Your task to perform on an android device: snooze an email in the gmail app Image 0: 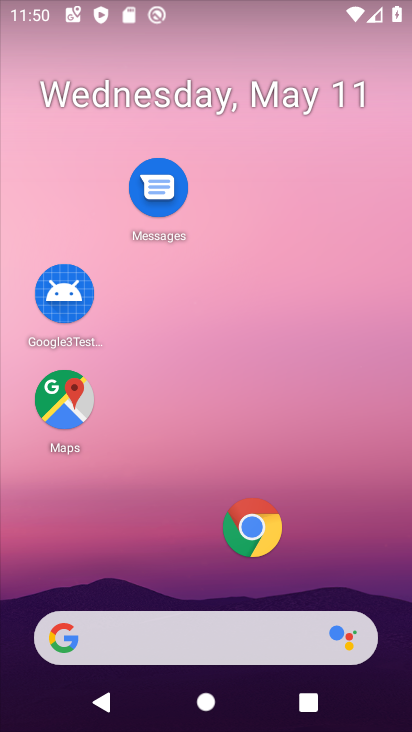
Step 0: drag from (201, 593) to (98, 169)
Your task to perform on an android device: snooze an email in the gmail app Image 1: 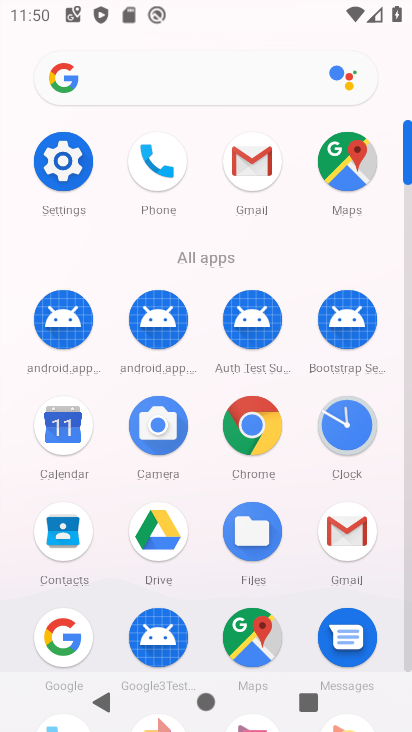
Step 1: click (357, 547)
Your task to perform on an android device: snooze an email in the gmail app Image 2: 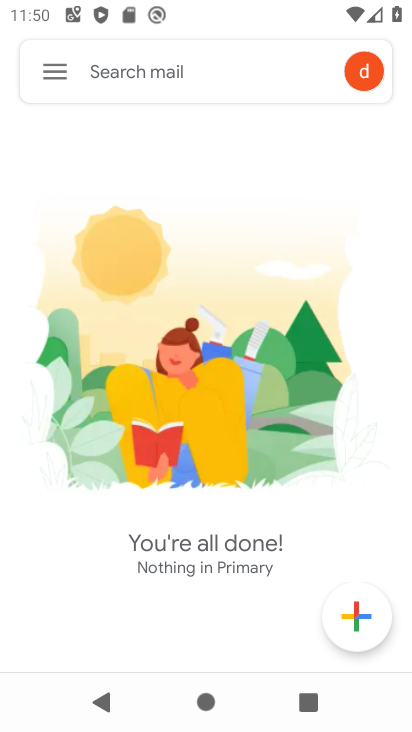
Step 2: click (46, 91)
Your task to perform on an android device: snooze an email in the gmail app Image 3: 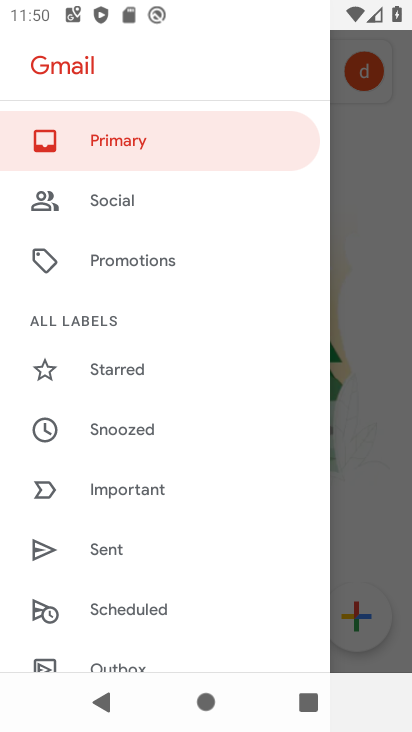
Step 3: click (137, 433)
Your task to perform on an android device: snooze an email in the gmail app Image 4: 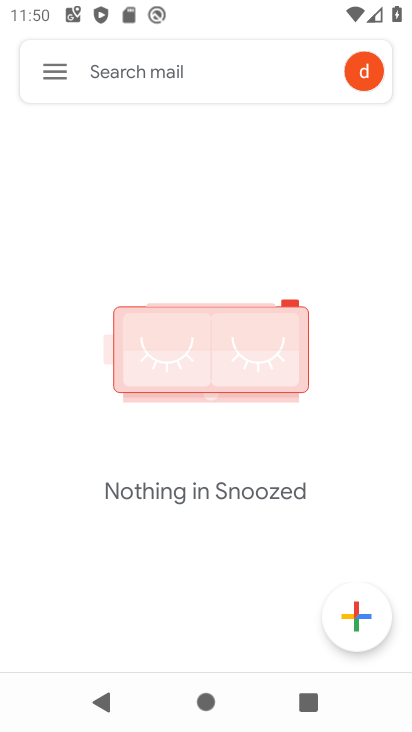
Step 4: click (54, 61)
Your task to perform on an android device: snooze an email in the gmail app Image 5: 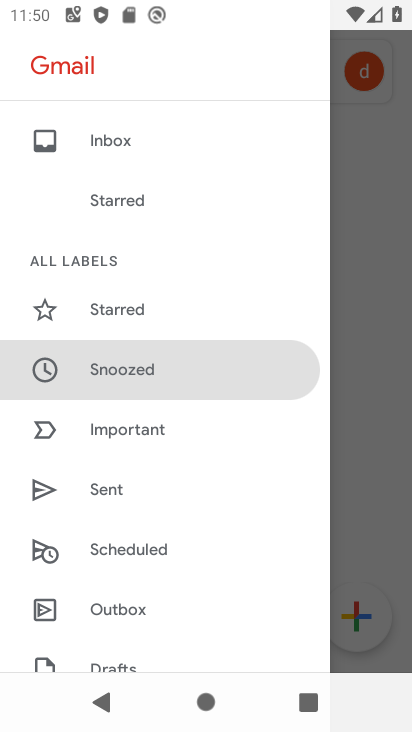
Step 5: drag from (140, 604) to (0, 195)
Your task to perform on an android device: snooze an email in the gmail app Image 6: 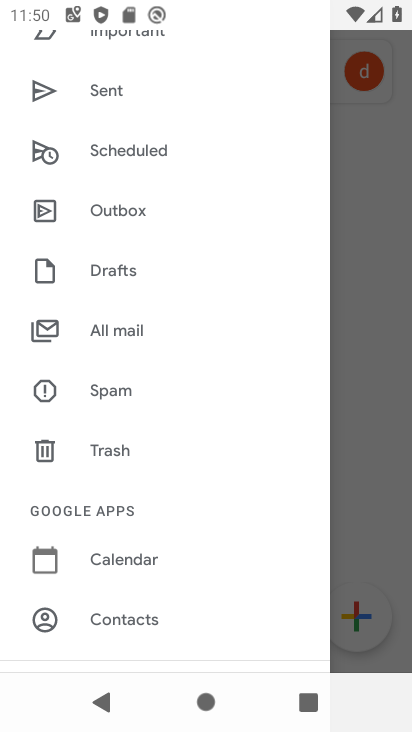
Step 6: click (96, 320)
Your task to perform on an android device: snooze an email in the gmail app Image 7: 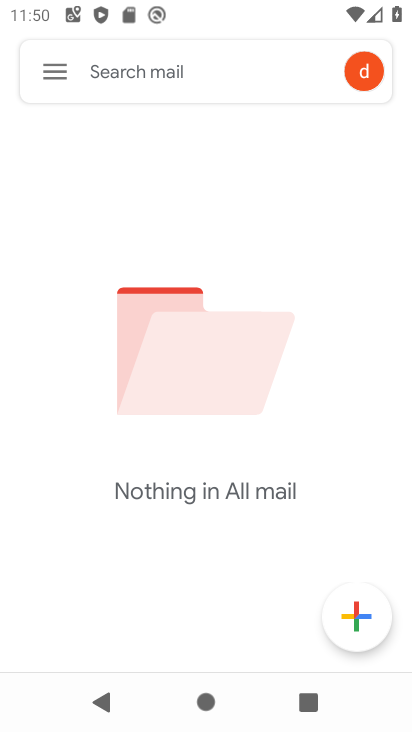
Step 7: task complete